Your task to perform on an android device: Add "razer nari" to the cart on bestbuy.com, then select checkout. Image 0: 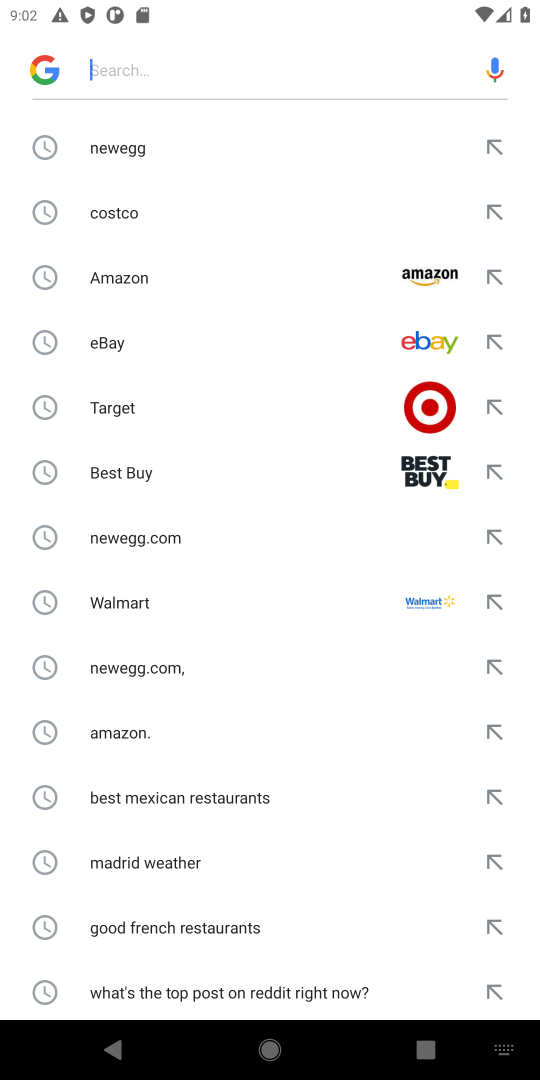
Step 0: click (137, 476)
Your task to perform on an android device: Add "razer nari" to the cart on bestbuy.com, then select checkout. Image 1: 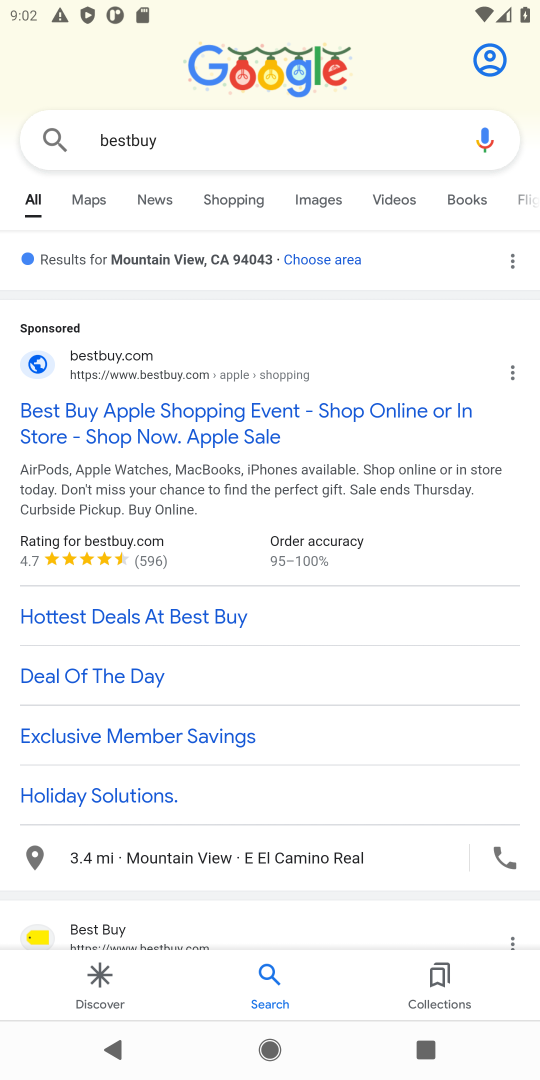
Step 1: click (146, 436)
Your task to perform on an android device: Add "razer nari" to the cart on bestbuy.com, then select checkout. Image 2: 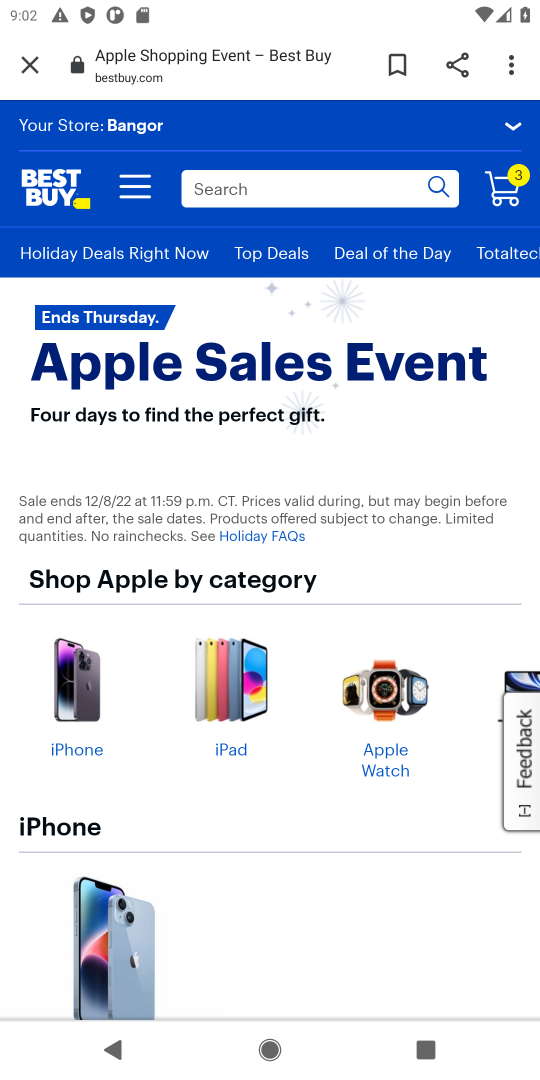
Step 2: click (360, 188)
Your task to perform on an android device: Add "razer nari" to the cart on bestbuy.com, then select checkout. Image 3: 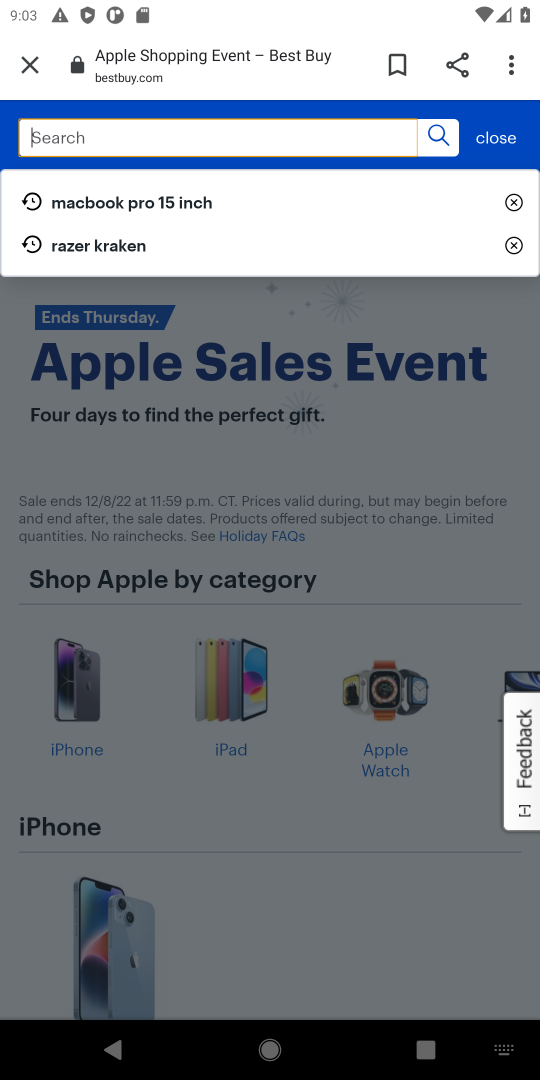
Step 3: type "razer nari"
Your task to perform on an android device: Add "razer nari" to the cart on bestbuy.com, then select checkout. Image 4: 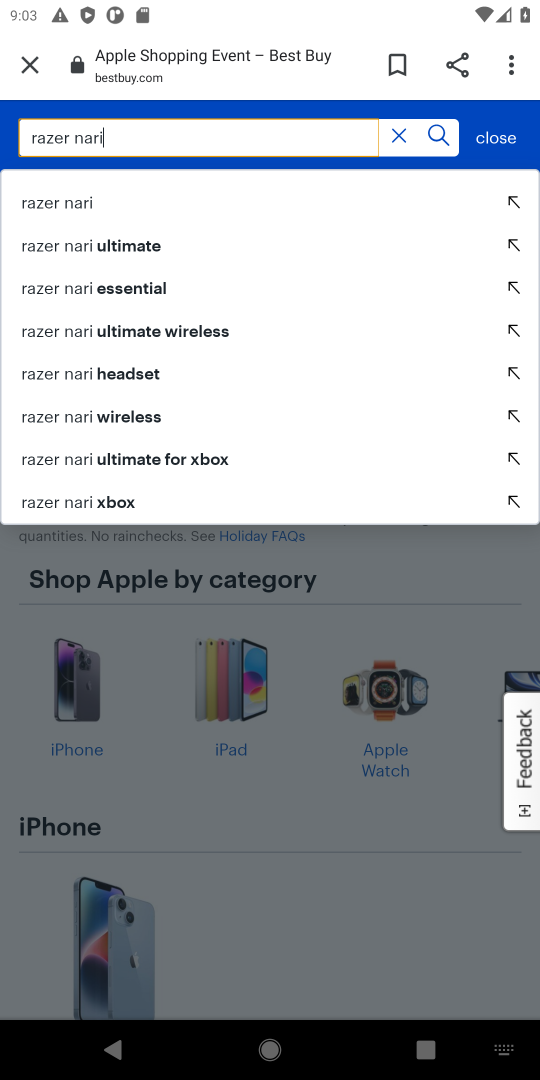
Step 4: click (98, 201)
Your task to perform on an android device: Add "razer nari" to the cart on bestbuy.com, then select checkout. Image 5: 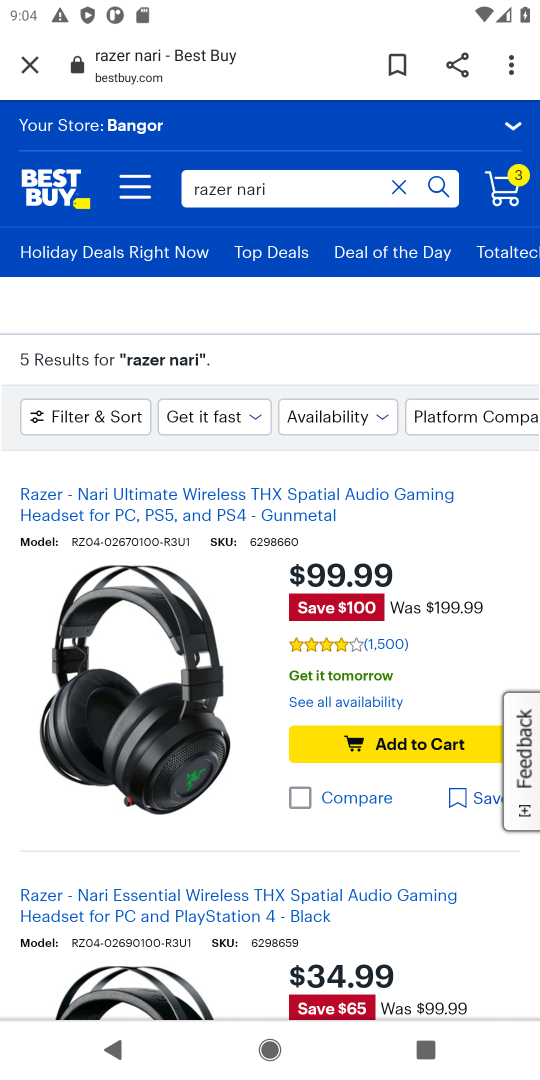
Step 5: click (372, 741)
Your task to perform on an android device: Add "razer nari" to the cart on bestbuy.com, then select checkout. Image 6: 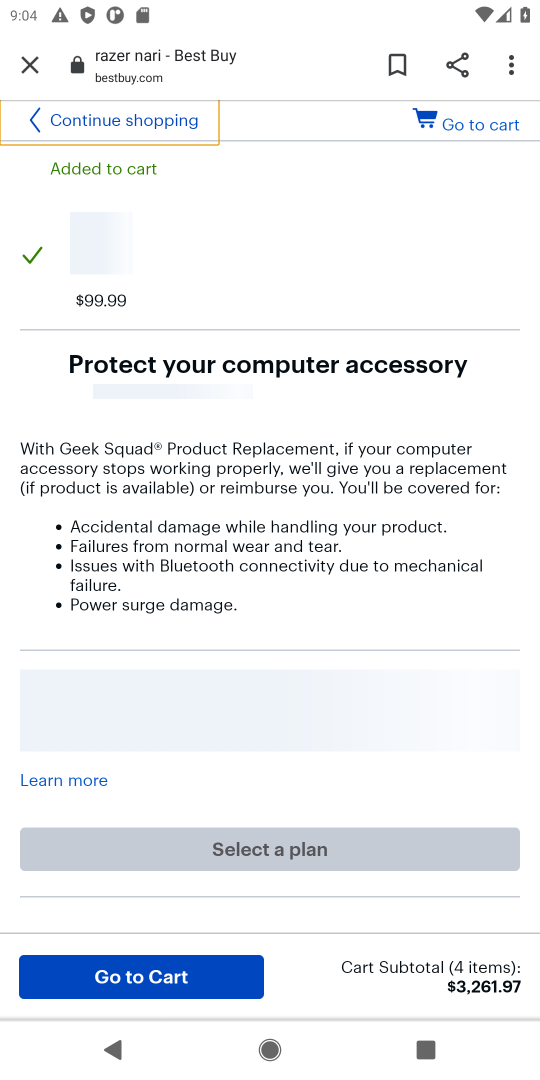
Step 6: click (150, 974)
Your task to perform on an android device: Add "razer nari" to the cart on bestbuy.com, then select checkout. Image 7: 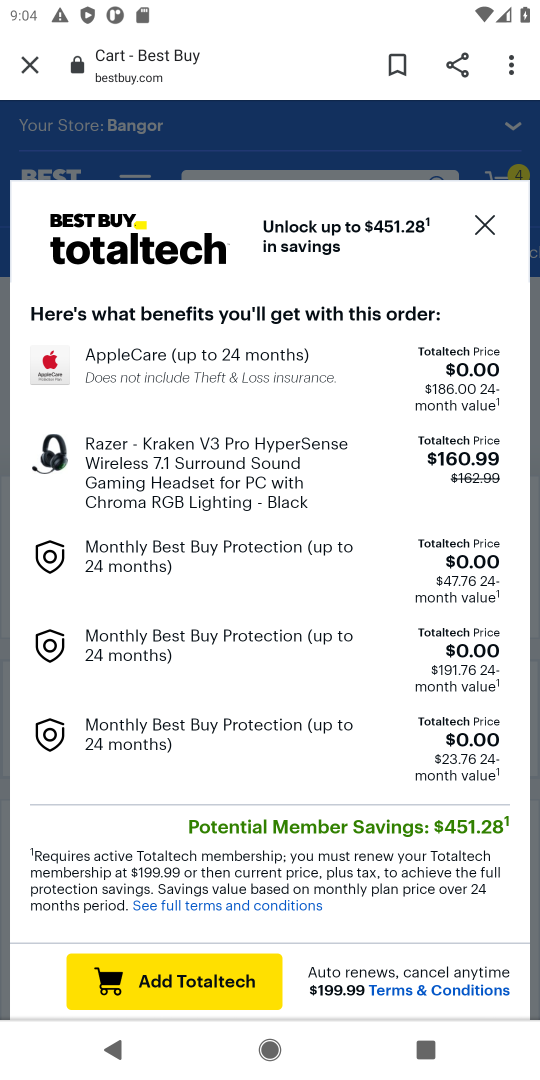
Step 7: click (475, 224)
Your task to perform on an android device: Add "razer nari" to the cart on bestbuy.com, then select checkout. Image 8: 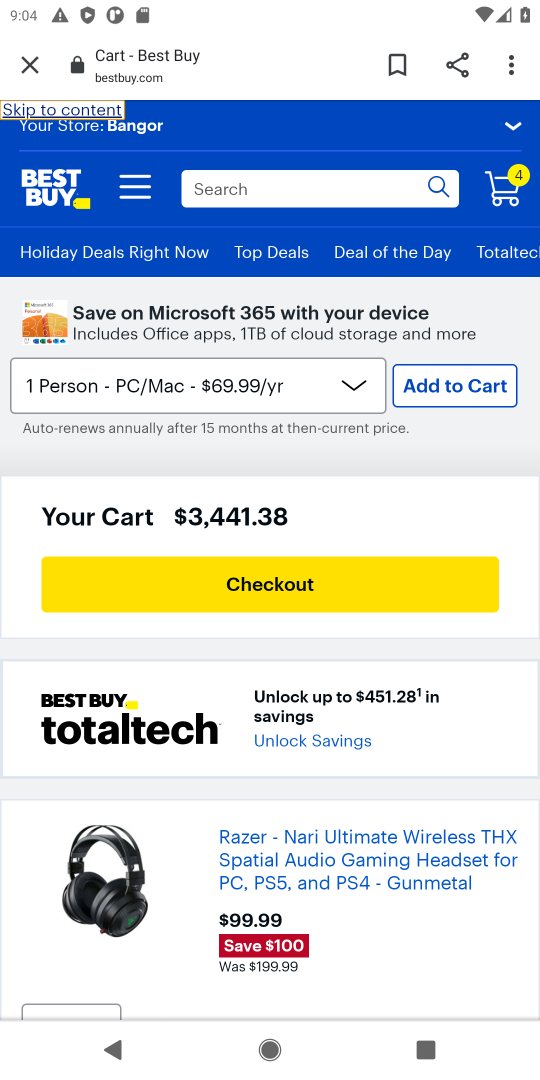
Step 8: task complete